Your task to perform on an android device: Show me recent news Image 0: 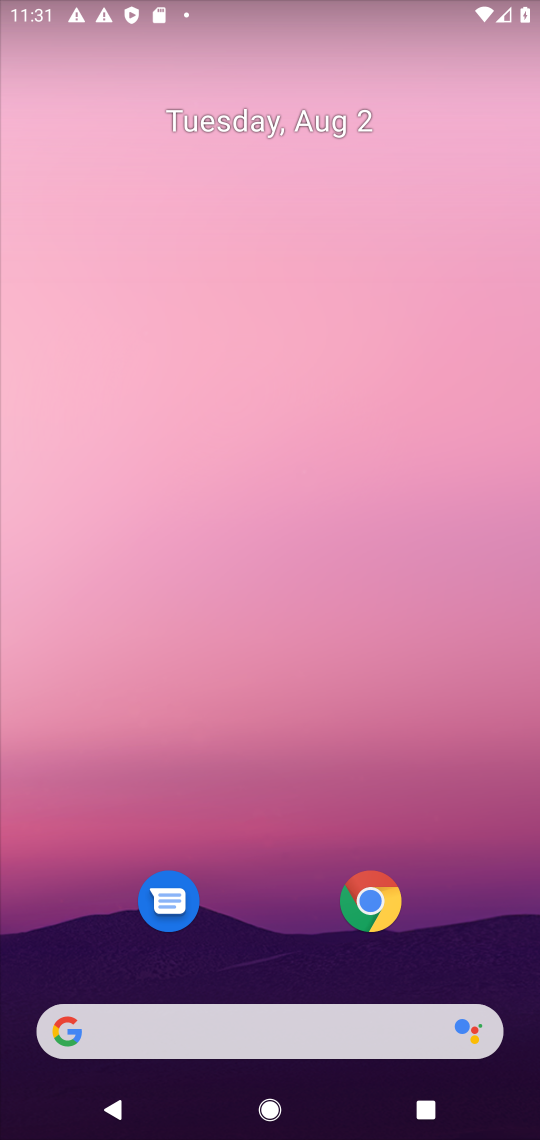
Step 0: drag from (118, 460) to (502, 389)
Your task to perform on an android device: Show me recent news Image 1: 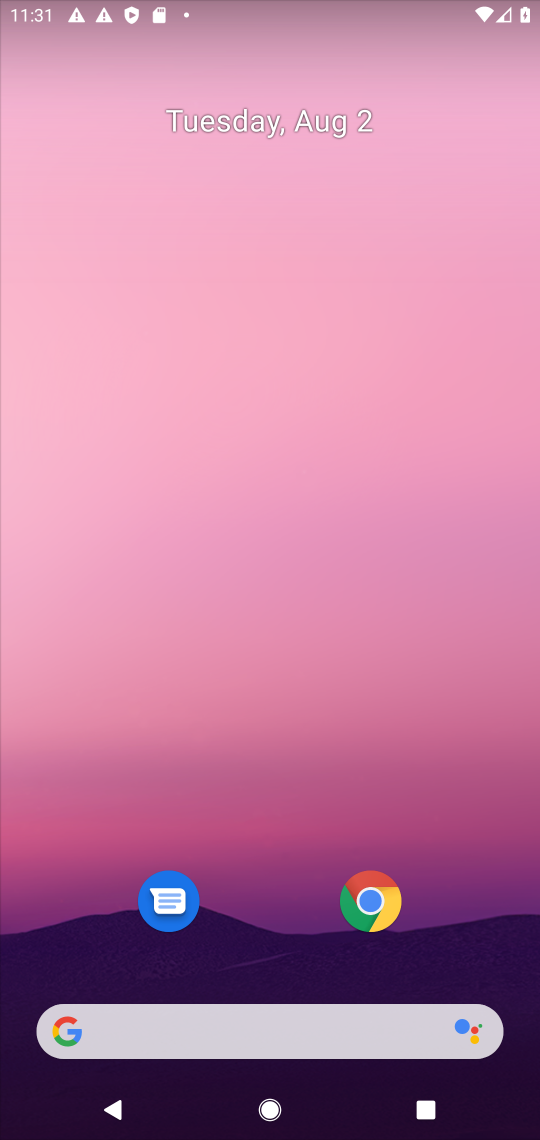
Step 1: task complete